Your task to perform on an android device: change alarm snooze length Image 0: 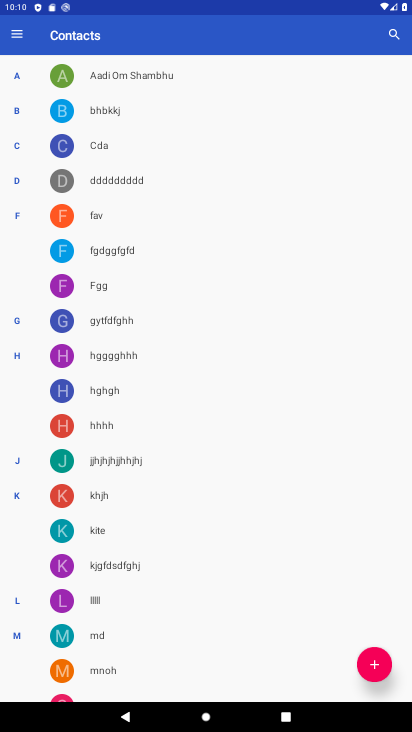
Step 0: task complete